Your task to perform on an android device: Check the settings for the Google Photos app Image 0: 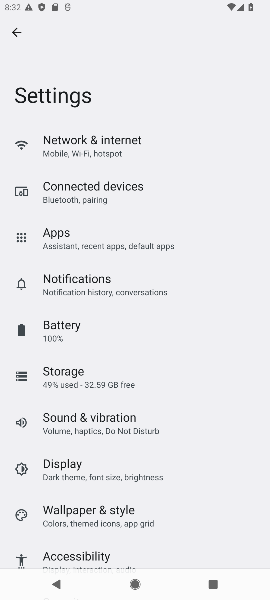
Step 0: press home button
Your task to perform on an android device: Check the settings for the Google Photos app Image 1: 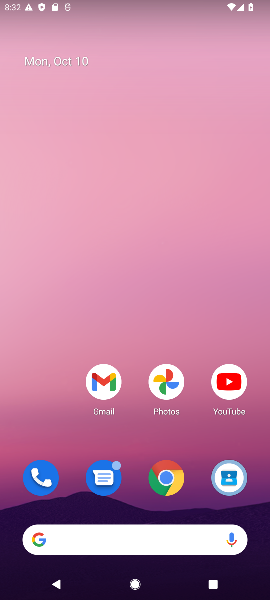
Step 1: click (167, 389)
Your task to perform on an android device: Check the settings for the Google Photos app Image 2: 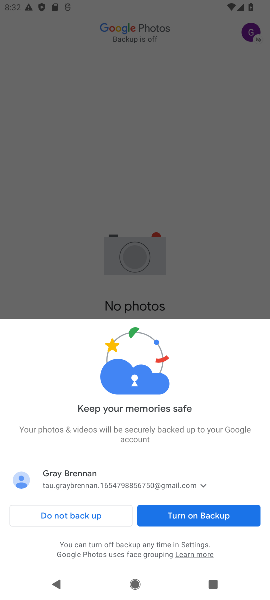
Step 2: click (102, 519)
Your task to perform on an android device: Check the settings for the Google Photos app Image 3: 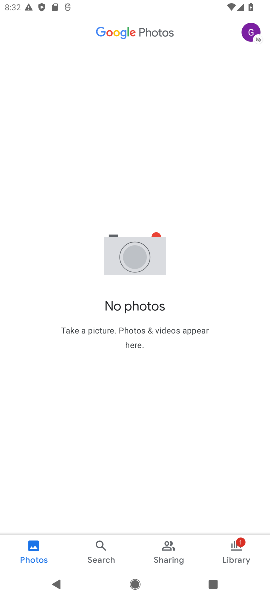
Step 3: click (249, 35)
Your task to perform on an android device: Check the settings for the Google Photos app Image 4: 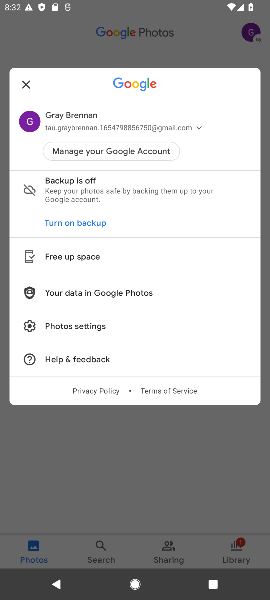
Step 4: click (86, 329)
Your task to perform on an android device: Check the settings for the Google Photos app Image 5: 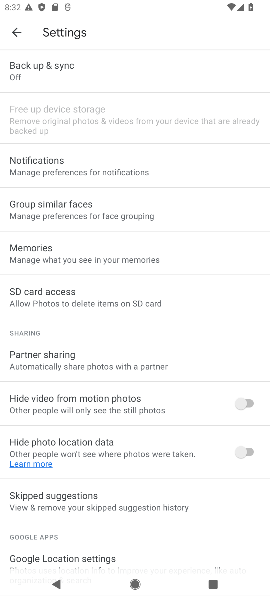
Step 5: task complete